Your task to perform on an android device: refresh tabs in the chrome app Image 0: 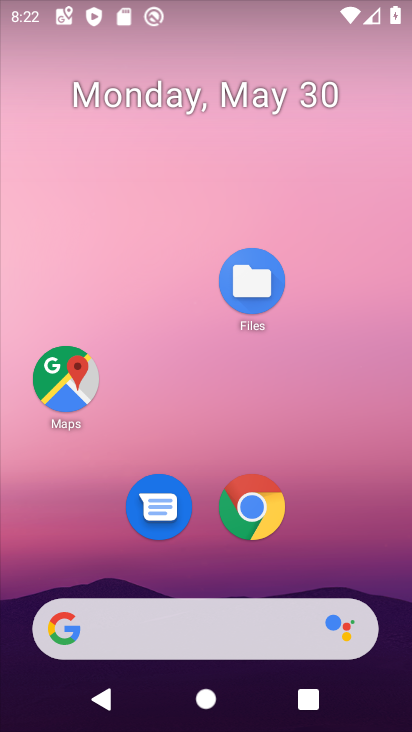
Step 0: click (262, 505)
Your task to perform on an android device: refresh tabs in the chrome app Image 1: 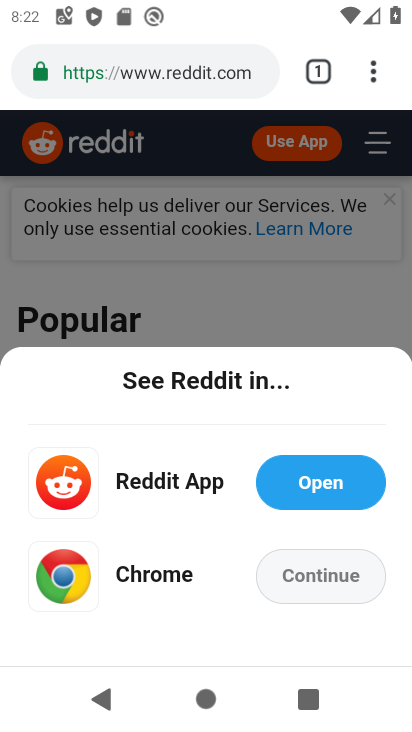
Step 1: click (372, 71)
Your task to perform on an android device: refresh tabs in the chrome app Image 2: 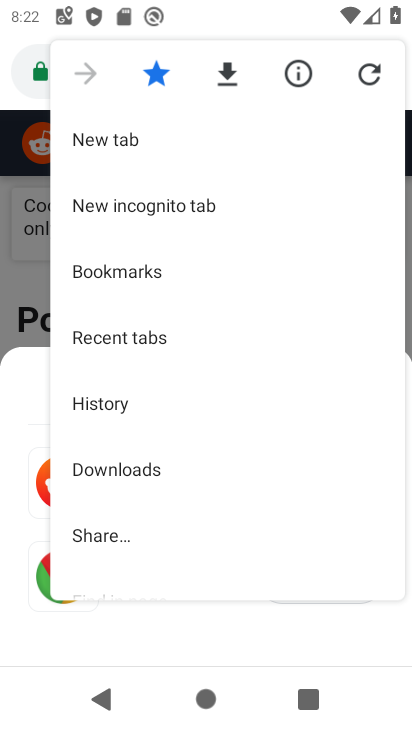
Step 2: click (368, 70)
Your task to perform on an android device: refresh tabs in the chrome app Image 3: 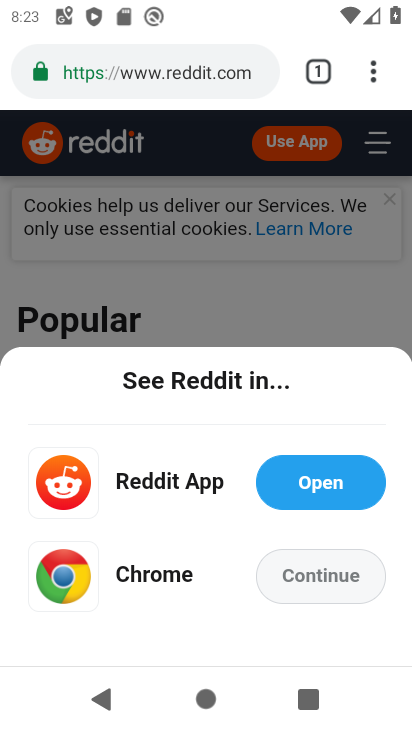
Step 3: task complete